Your task to perform on an android device: Search for a new lipstick on Sephora Image 0: 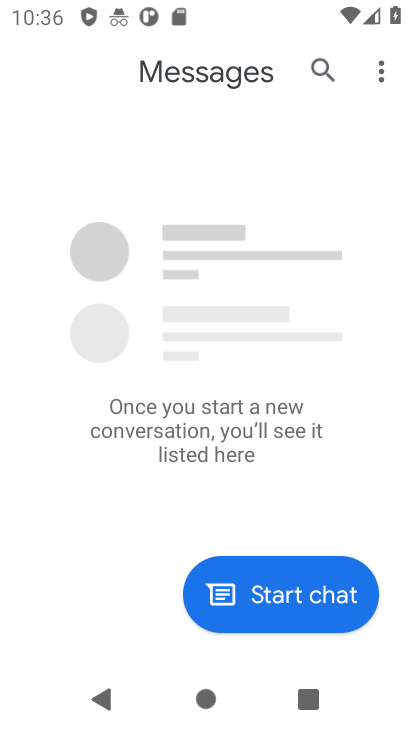
Step 0: press home button
Your task to perform on an android device: Search for a new lipstick on Sephora Image 1: 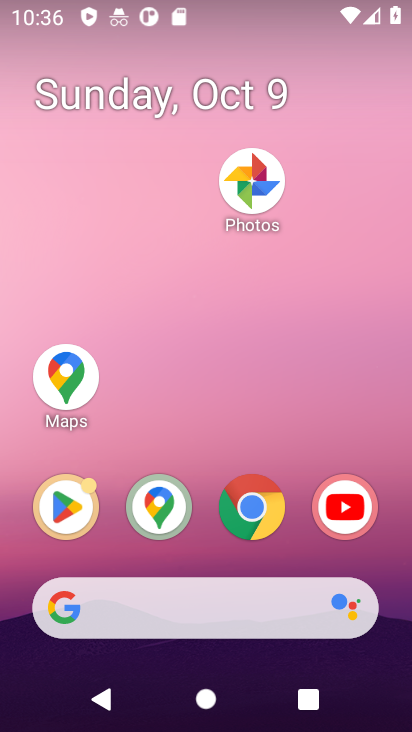
Step 1: drag from (185, 555) to (186, 35)
Your task to perform on an android device: Search for a new lipstick on Sephora Image 2: 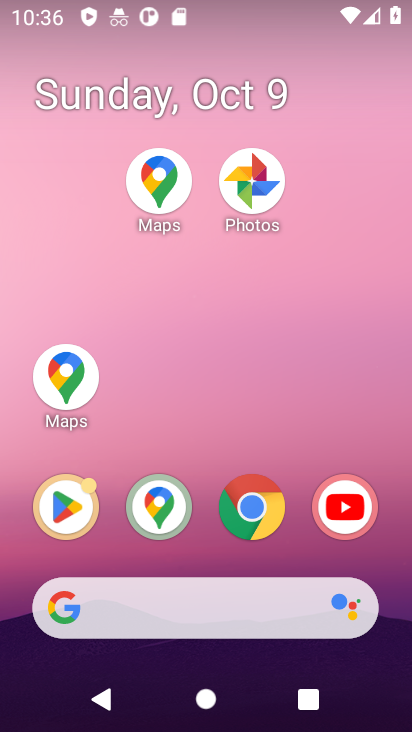
Step 2: drag from (295, 563) to (314, 161)
Your task to perform on an android device: Search for a new lipstick on Sephora Image 3: 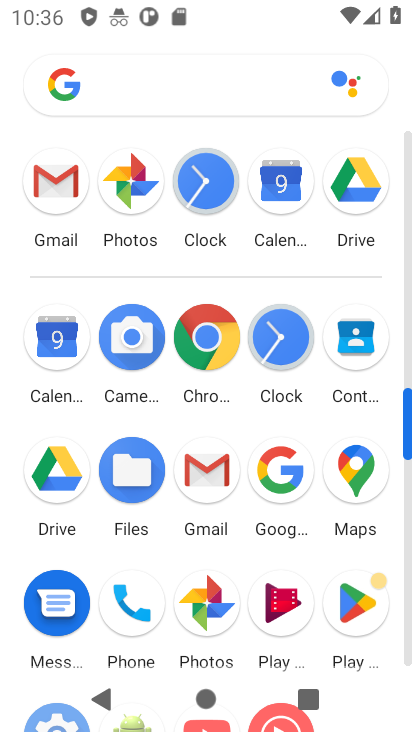
Step 3: click (214, 342)
Your task to perform on an android device: Search for a new lipstick on Sephora Image 4: 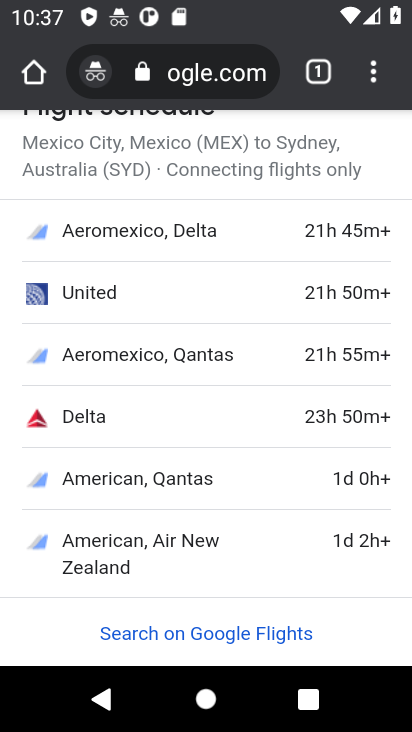
Step 4: click (183, 80)
Your task to perform on an android device: Search for a new lipstick on Sephora Image 5: 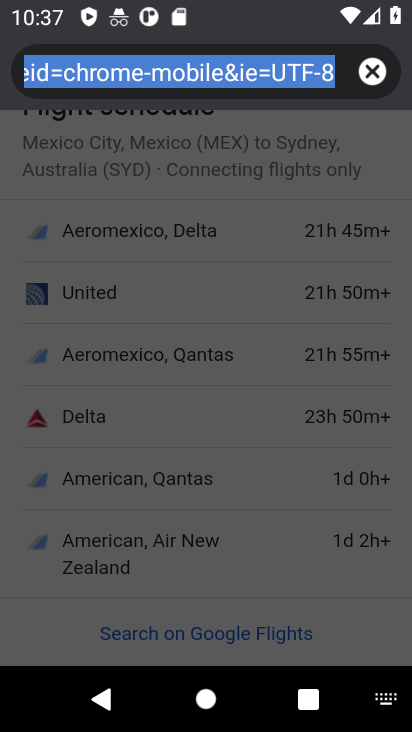
Step 5: type "a new lipstick on Sephora"
Your task to perform on an android device: Search for a new lipstick on Sephora Image 6: 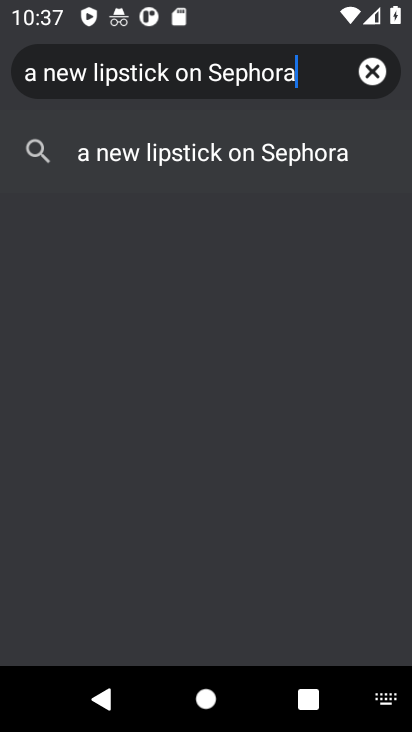
Step 6: press enter
Your task to perform on an android device: Search for a new lipstick on Sephora Image 7: 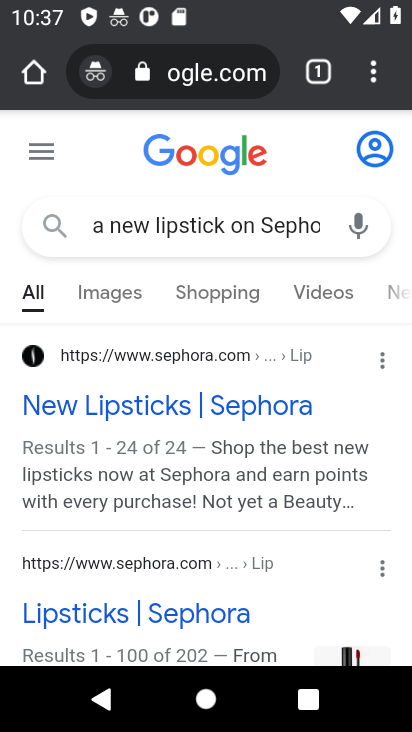
Step 7: drag from (313, 519) to (300, 247)
Your task to perform on an android device: Search for a new lipstick on Sephora Image 8: 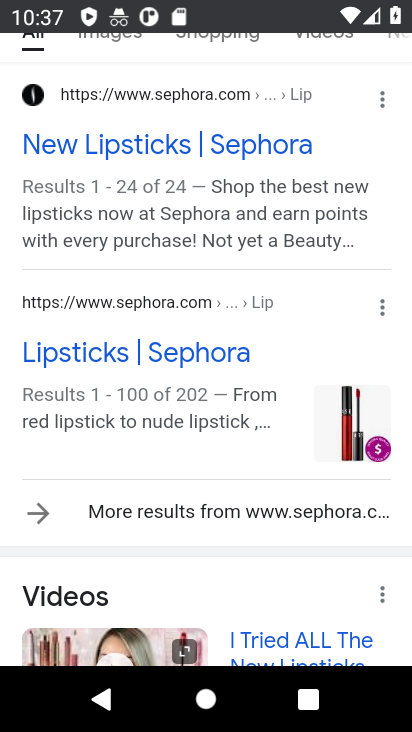
Step 8: click (191, 148)
Your task to perform on an android device: Search for a new lipstick on Sephora Image 9: 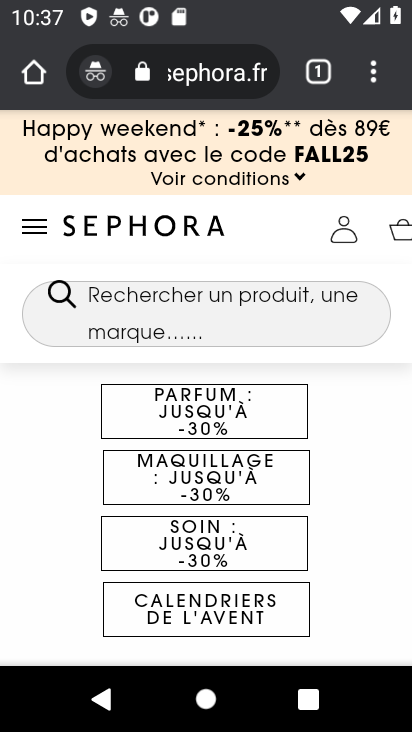
Step 9: task complete